Your task to perform on an android device: Search for seafood restaurants on Google Maps Image 0: 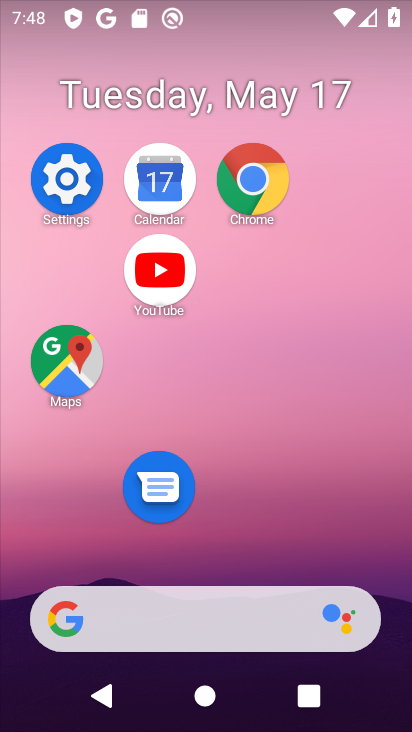
Step 0: click (45, 362)
Your task to perform on an android device: Search for seafood restaurants on Google Maps Image 1: 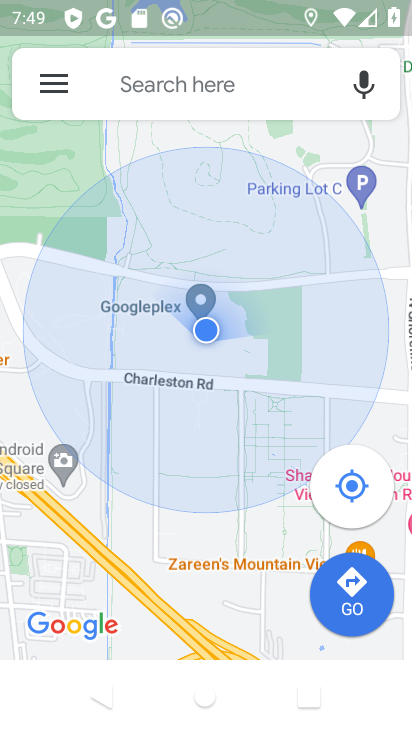
Step 1: click (232, 69)
Your task to perform on an android device: Search for seafood restaurants on Google Maps Image 2: 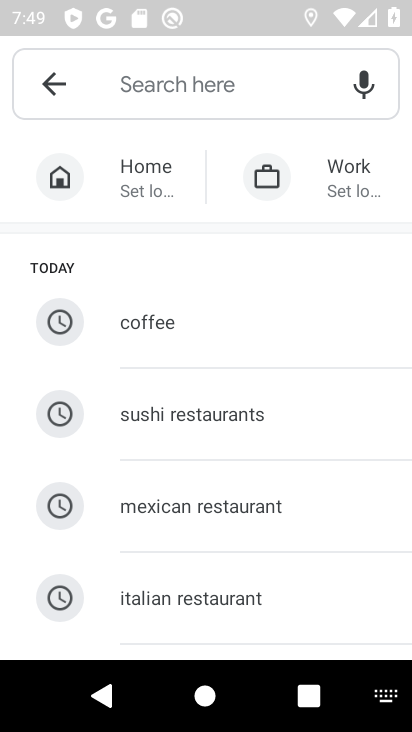
Step 2: drag from (207, 544) to (254, 243)
Your task to perform on an android device: Search for seafood restaurants on Google Maps Image 3: 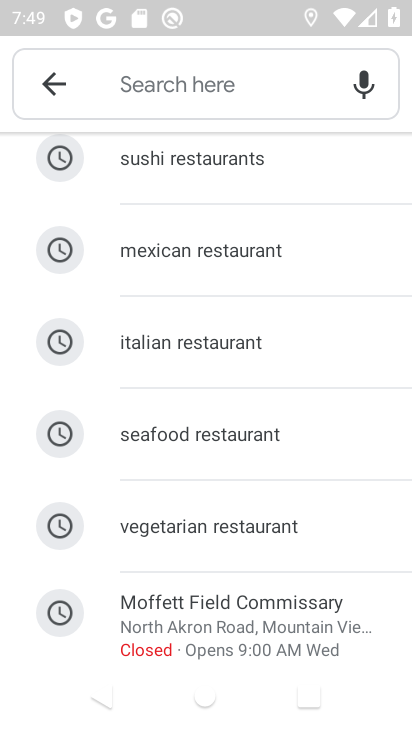
Step 3: click (252, 417)
Your task to perform on an android device: Search for seafood restaurants on Google Maps Image 4: 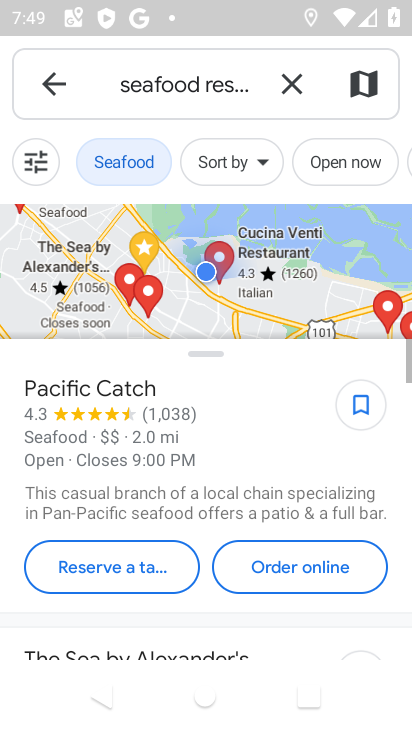
Step 4: task complete